Your task to perform on an android device: toggle improve location accuracy Image 0: 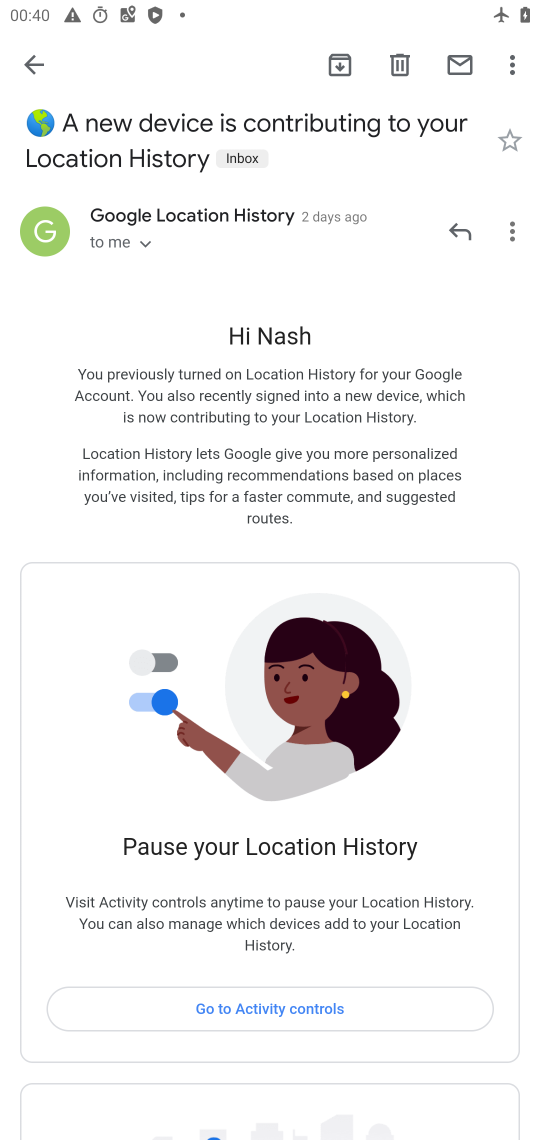
Step 0: press home button
Your task to perform on an android device: toggle improve location accuracy Image 1: 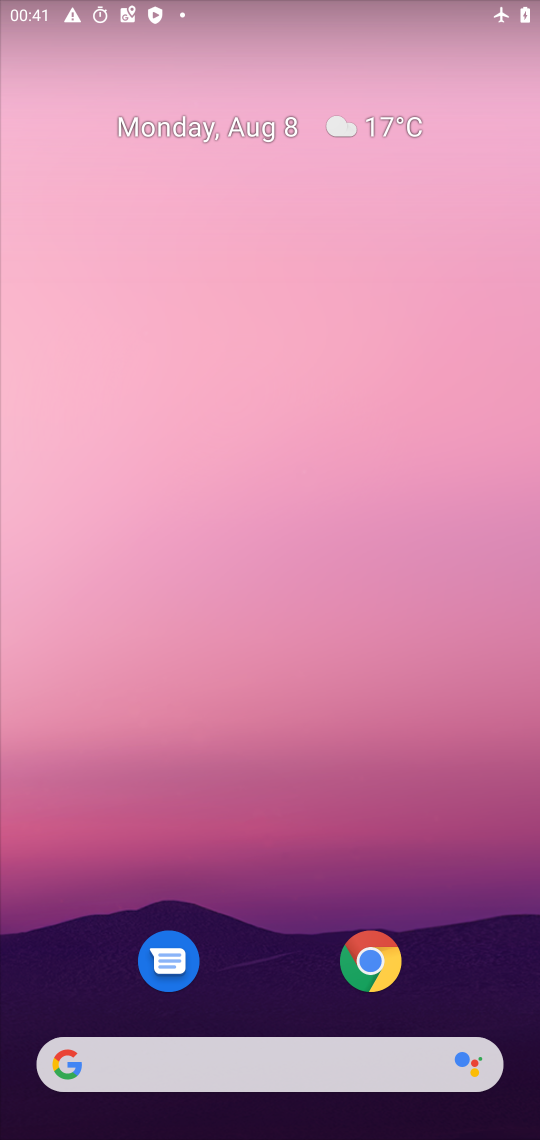
Step 1: drag from (349, 1060) to (235, 104)
Your task to perform on an android device: toggle improve location accuracy Image 2: 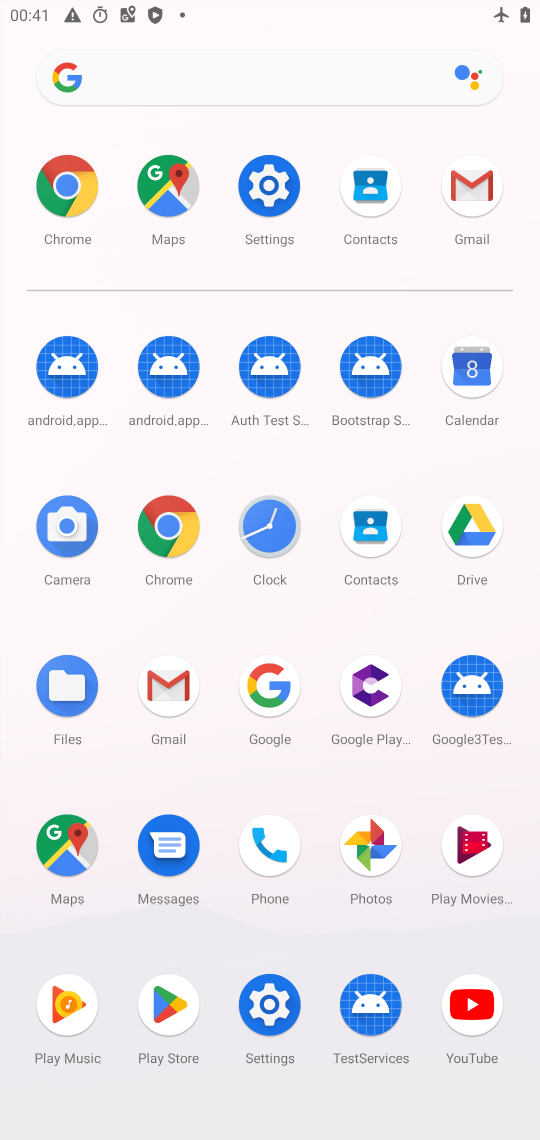
Step 2: click (277, 175)
Your task to perform on an android device: toggle improve location accuracy Image 3: 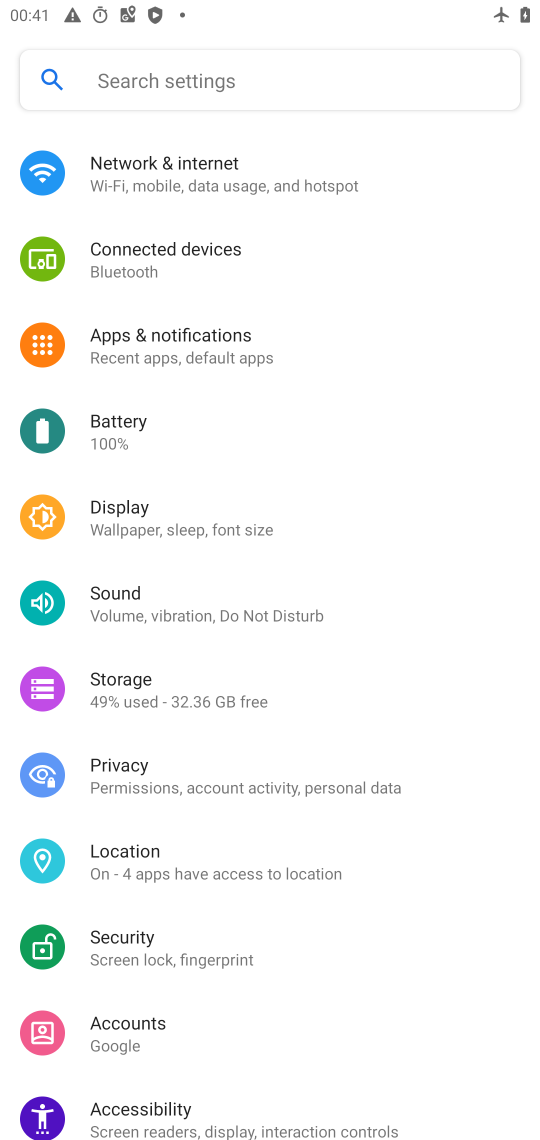
Step 3: click (201, 866)
Your task to perform on an android device: toggle improve location accuracy Image 4: 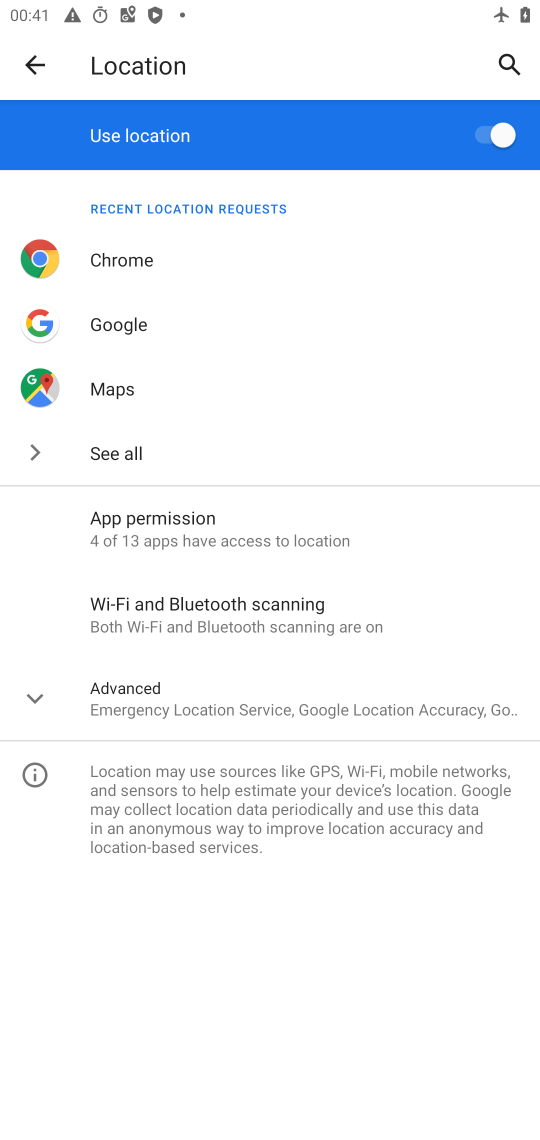
Step 4: click (212, 704)
Your task to perform on an android device: toggle improve location accuracy Image 5: 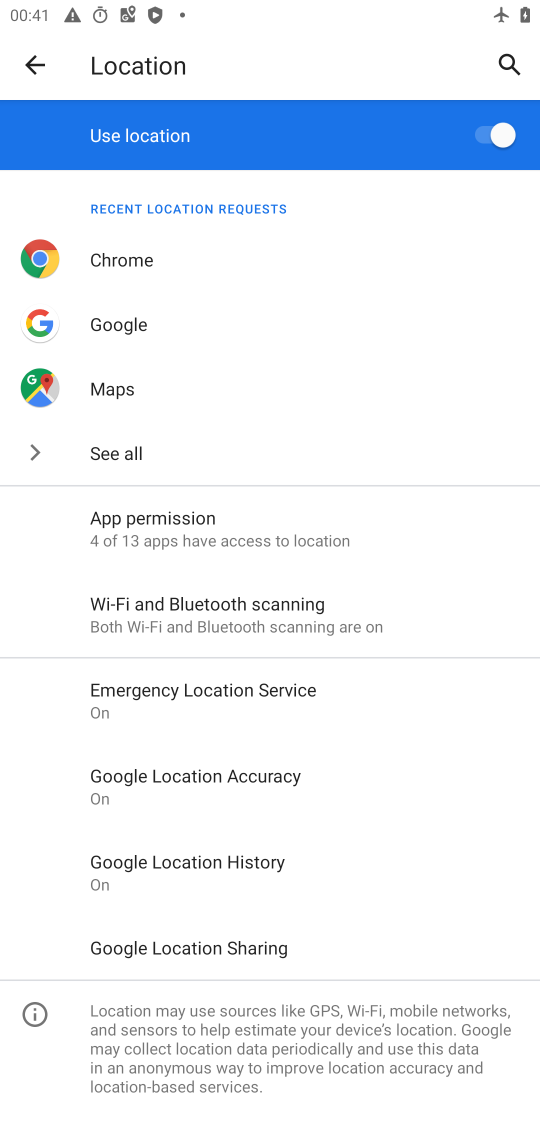
Step 5: click (285, 805)
Your task to perform on an android device: toggle improve location accuracy Image 6: 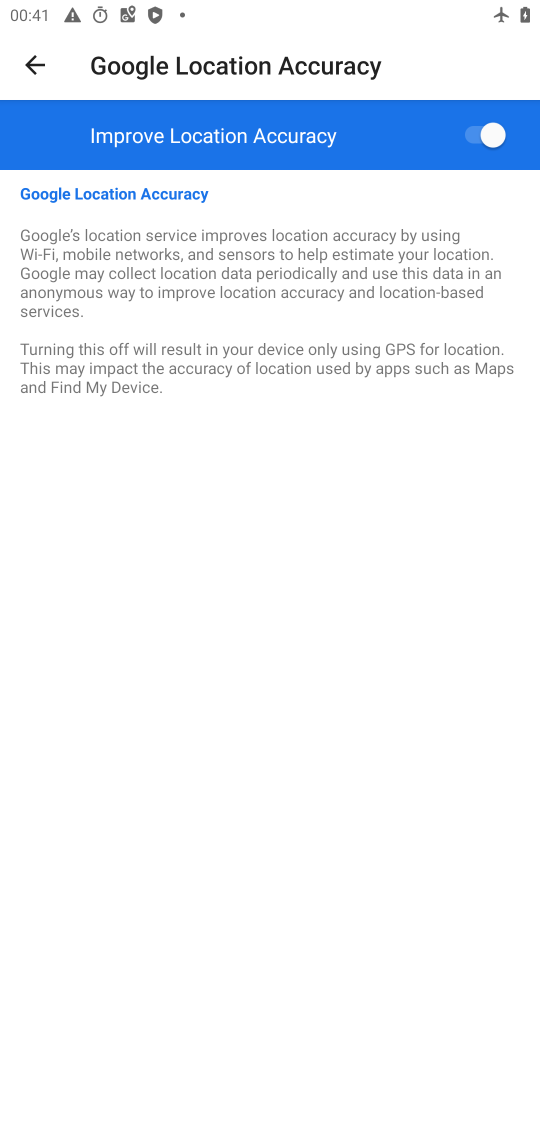
Step 6: click (477, 126)
Your task to perform on an android device: toggle improve location accuracy Image 7: 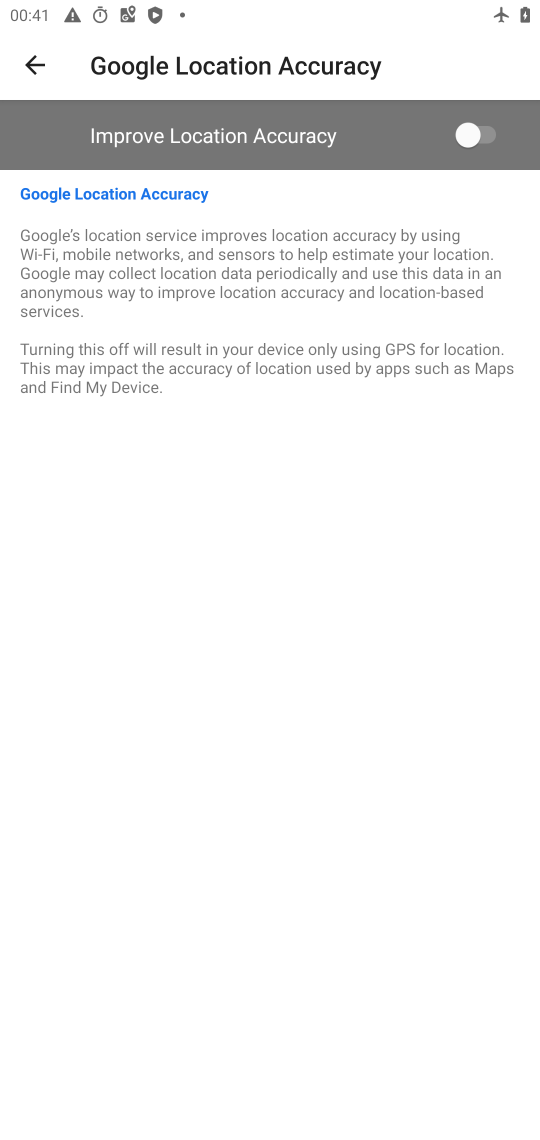
Step 7: task complete